Your task to perform on an android device: manage bookmarks in the chrome app Image 0: 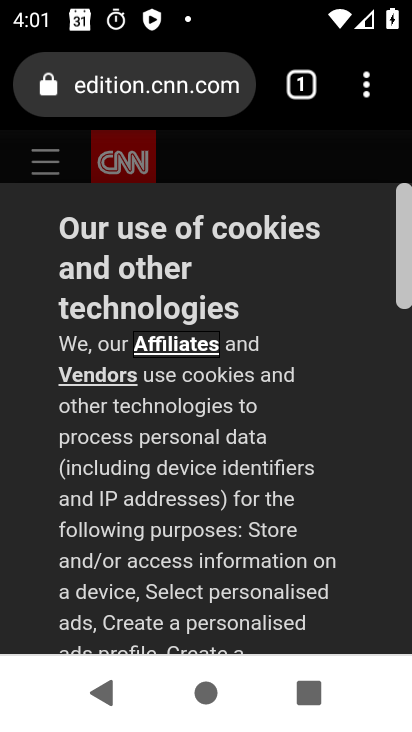
Step 0: click (378, 93)
Your task to perform on an android device: manage bookmarks in the chrome app Image 1: 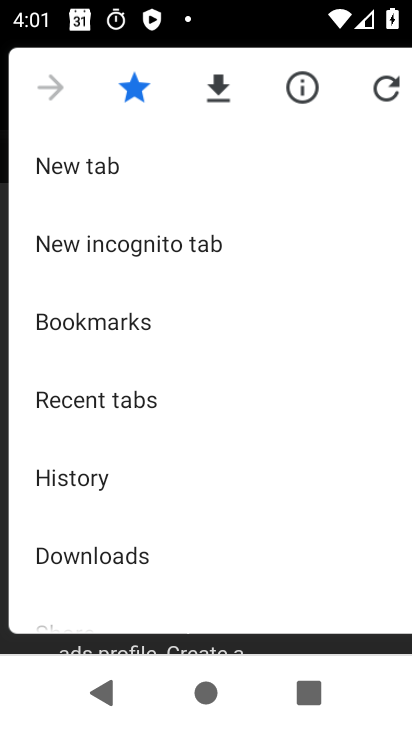
Step 1: click (175, 335)
Your task to perform on an android device: manage bookmarks in the chrome app Image 2: 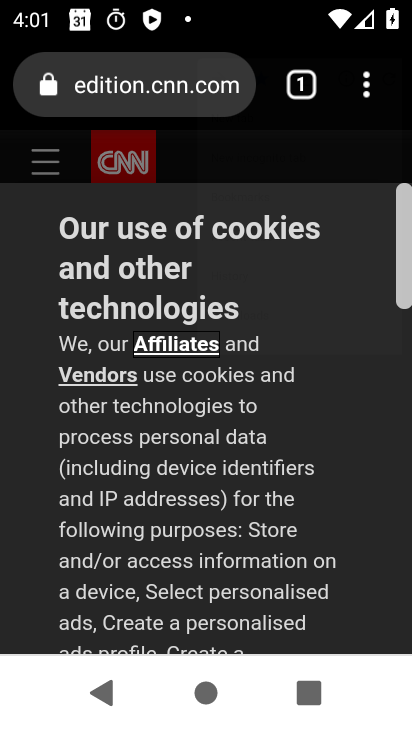
Step 2: click (175, 335)
Your task to perform on an android device: manage bookmarks in the chrome app Image 3: 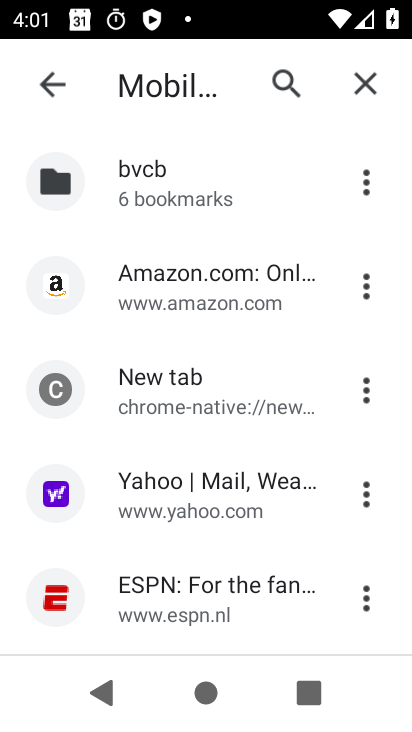
Step 3: click (206, 308)
Your task to perform on an android device: manage bookmarks in the chrome app Image 4: 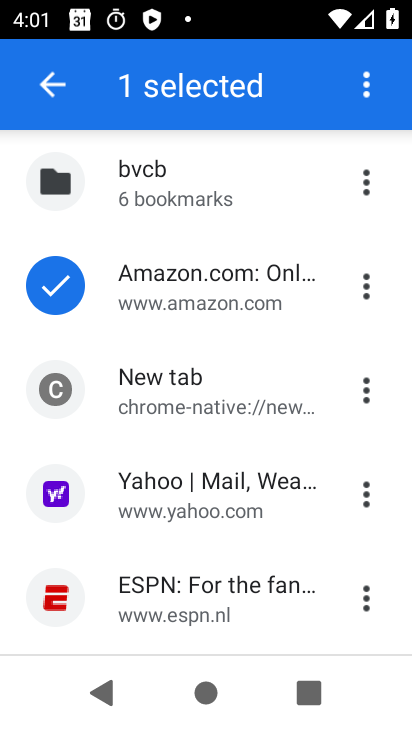
Step 4: click (377, 88)
Your task to perform on an android device: manage bookmarks in the chrome app Image 5: 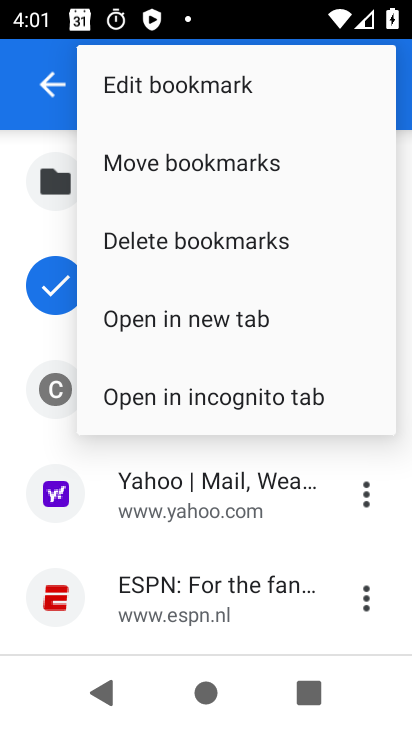
Step 5: click (263, 173)
Your task to perform on an android device: manage bookmarks in the chrome app Image 6: 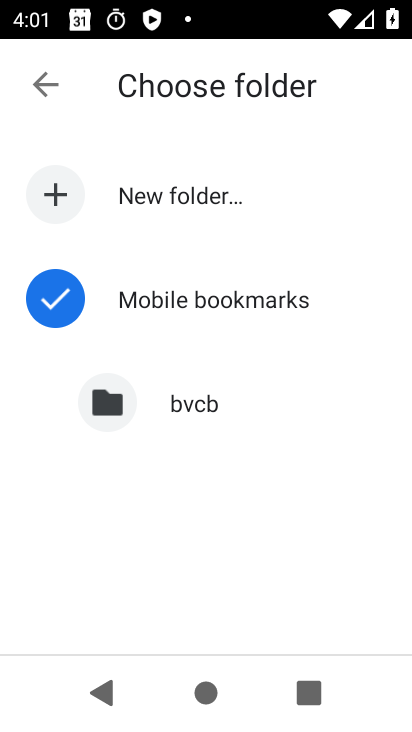
Step 6: click (222, 420)
Your task to perform on an android device: manage bookmarks in the chrome app Image 7: 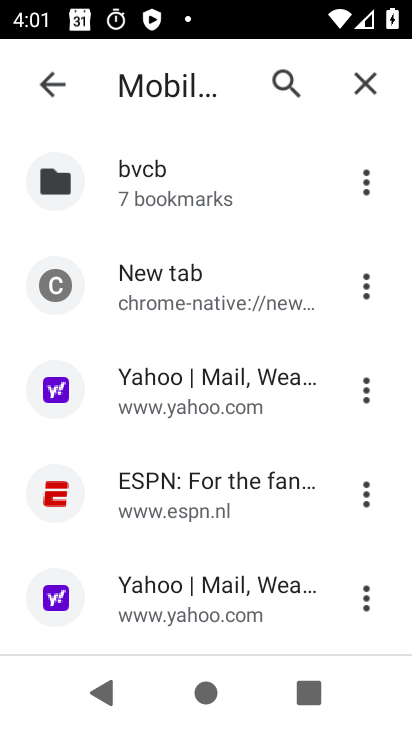
Step 7: task complete